Your task to perform on an android device: turn on airplane mode Image 0: 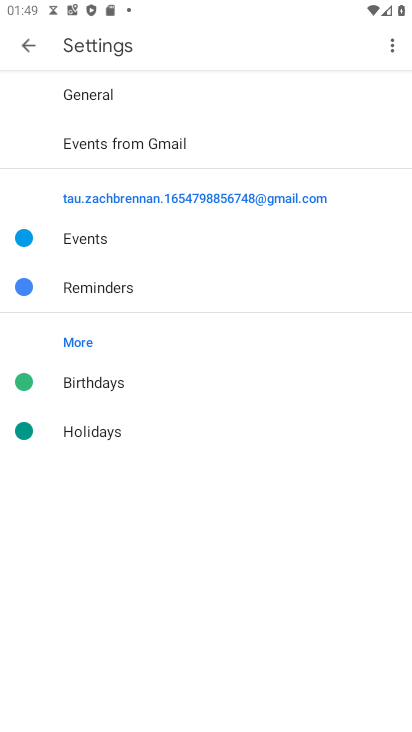
Step 0: press home button
Your task to perform on an android device: turn on airplane mode Image 1: 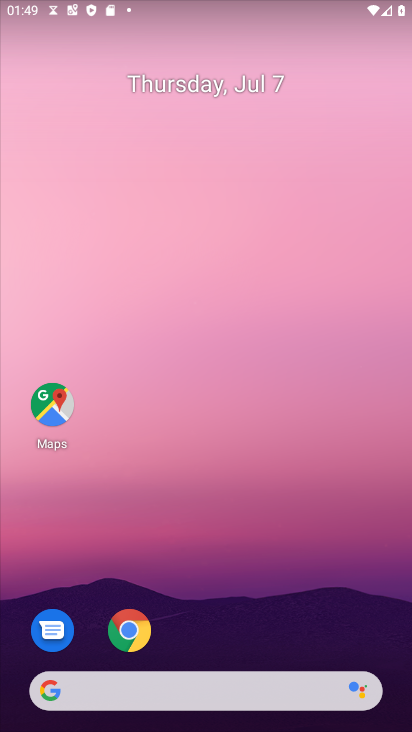
Step 1: drag from (286, 630) to (201, 105)
Your task to perform on an android device: turn on airplane mode Image 2: 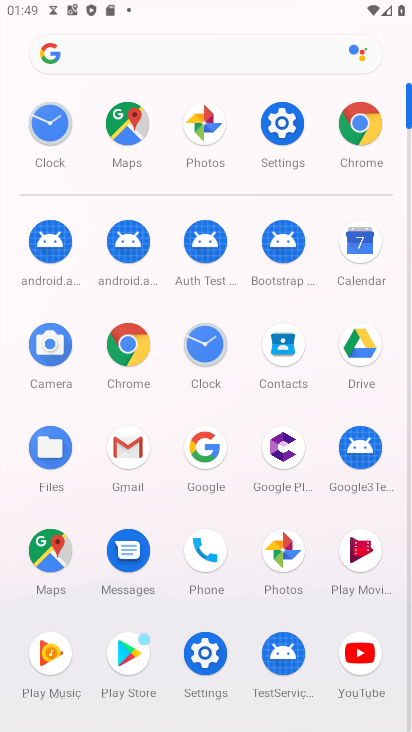
Step 2: click (278, 127)
Your task to perform on an android device: turn on airplane mode Image 3: 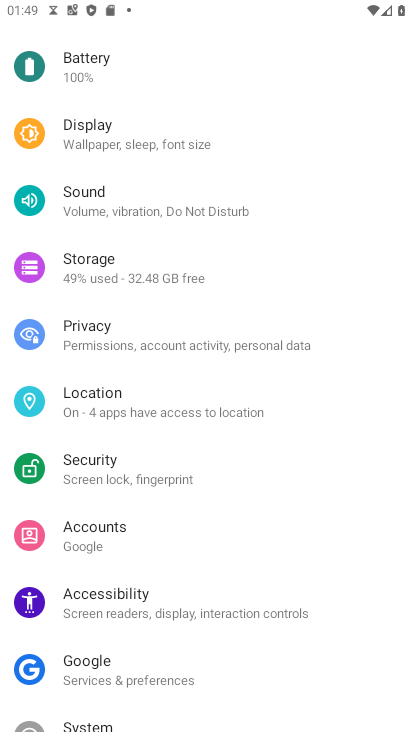
Step 3: drag from (218, 111) to (224, 497)
Your task to perform on an android device: turn on airplane mode Image 4: 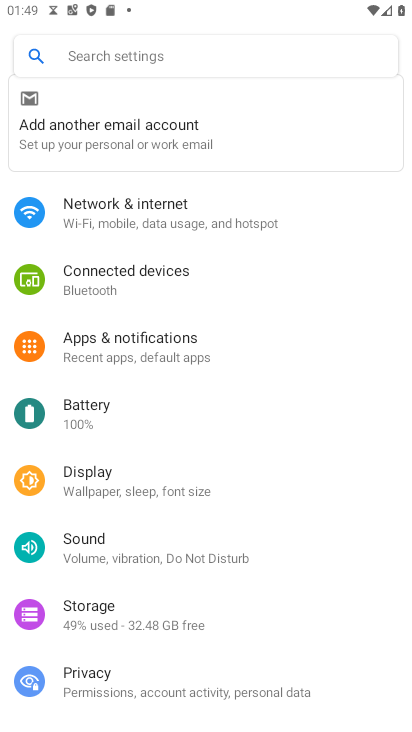
Step 4: click (175, 206)
Your task to perform on an android device: turn on airplane mode Image 5: 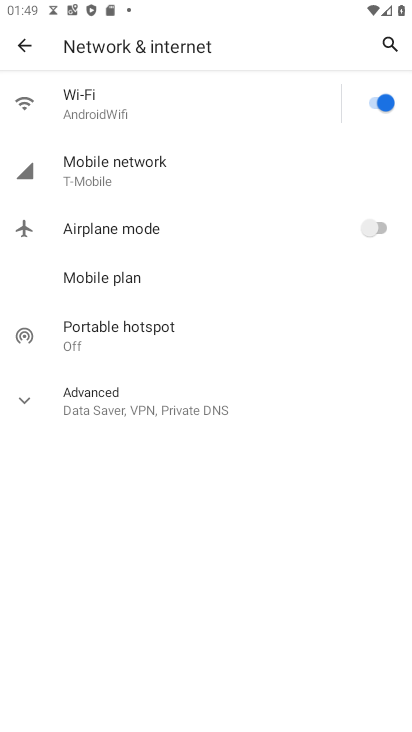
Step 5: click (363, 234)
Your task to perform on an android device: turn on airplane mode Image 6: 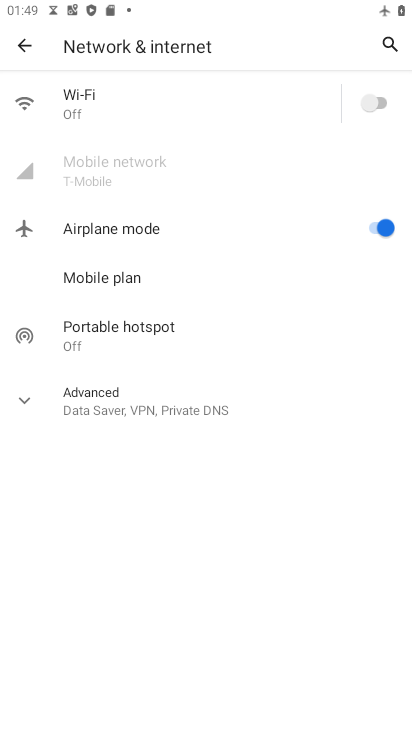
Step 6: task complete